Your task to perform on an android device: create a new album in the google photos Image 0: 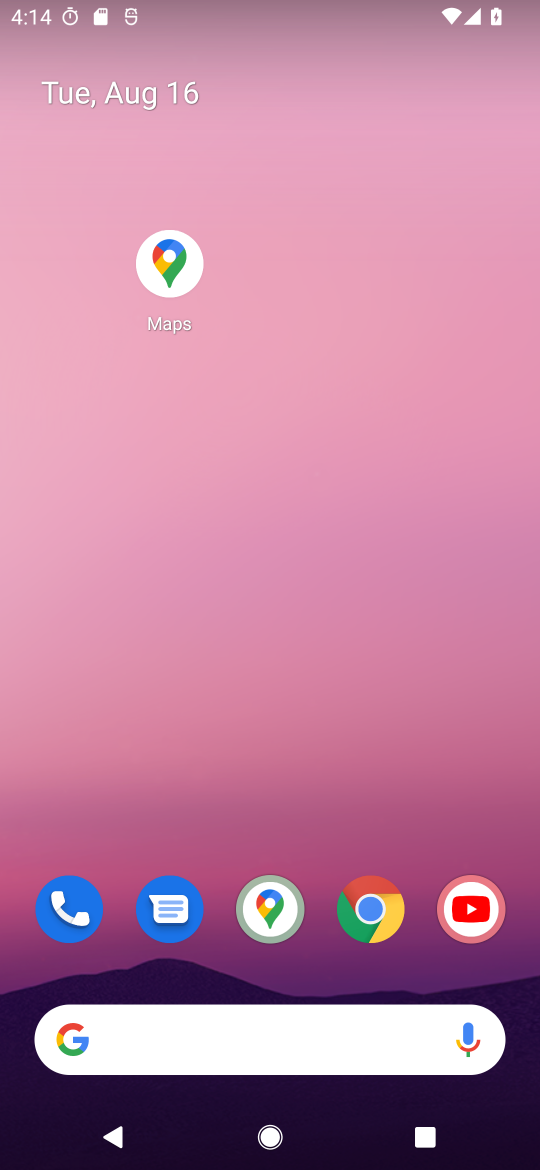
Step 0: drag from (269, 531) to (344, 5)
Your task to perform on an android device: create a new album in the google photos Image 1: 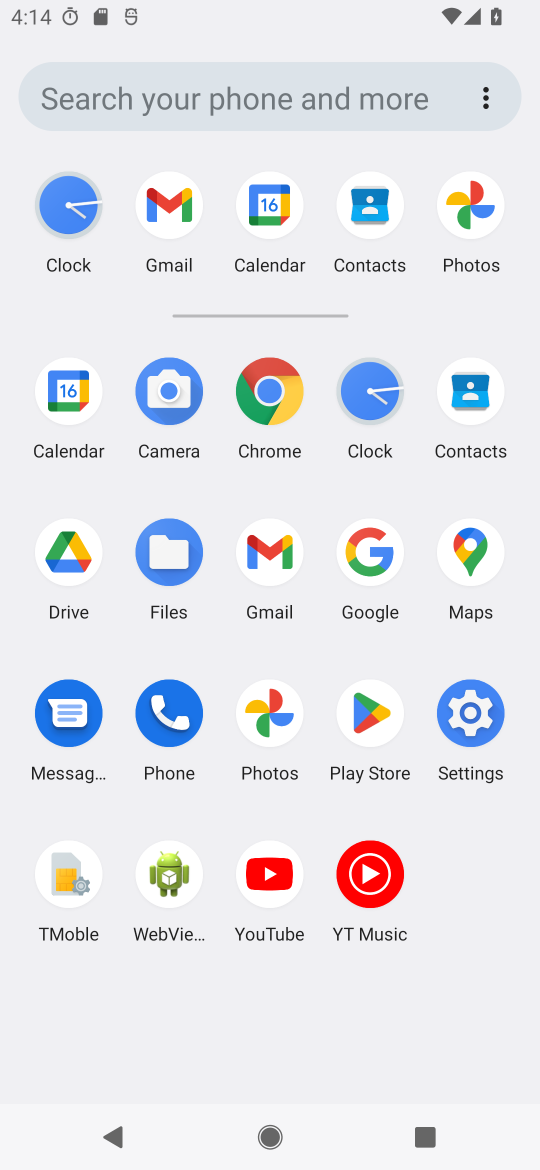
Step 1: click (257, 730)
Your task to perform on an android device: create a new album in the google photos Image 2: 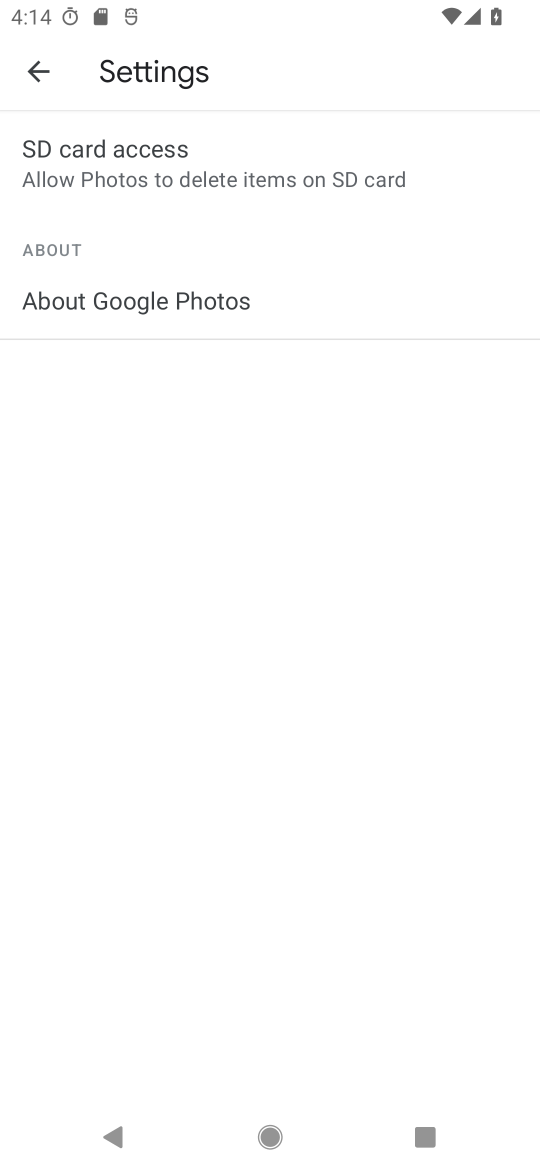
Step 2: click (36, 73)
Your task to perform on an android device: create a new album in the google photos Image 3: 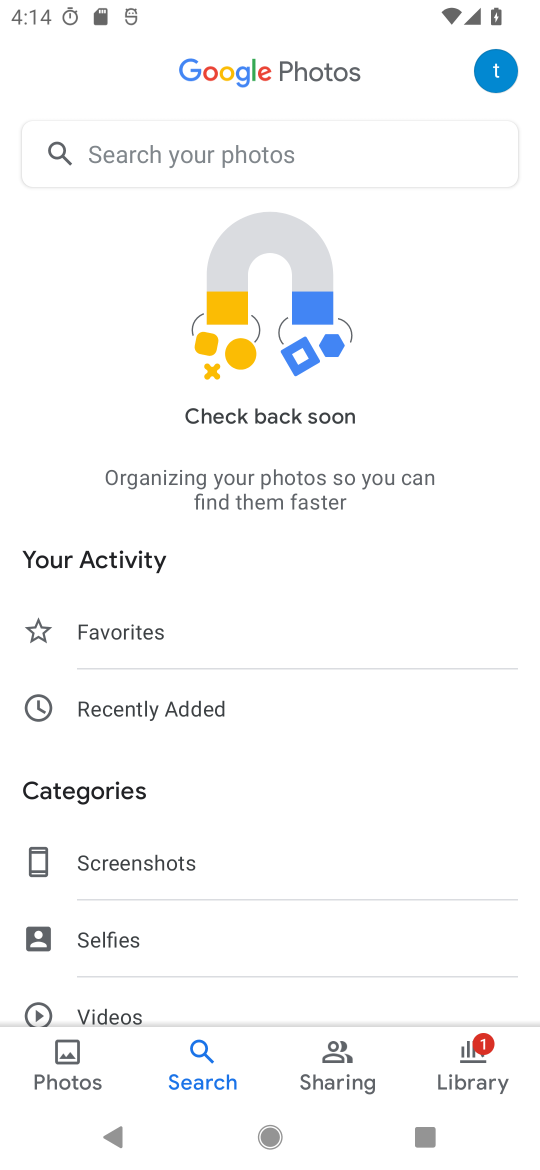
Step 3: click (36, 73)
Your task to perform on an android device: create a new album in the google photos Image 4: 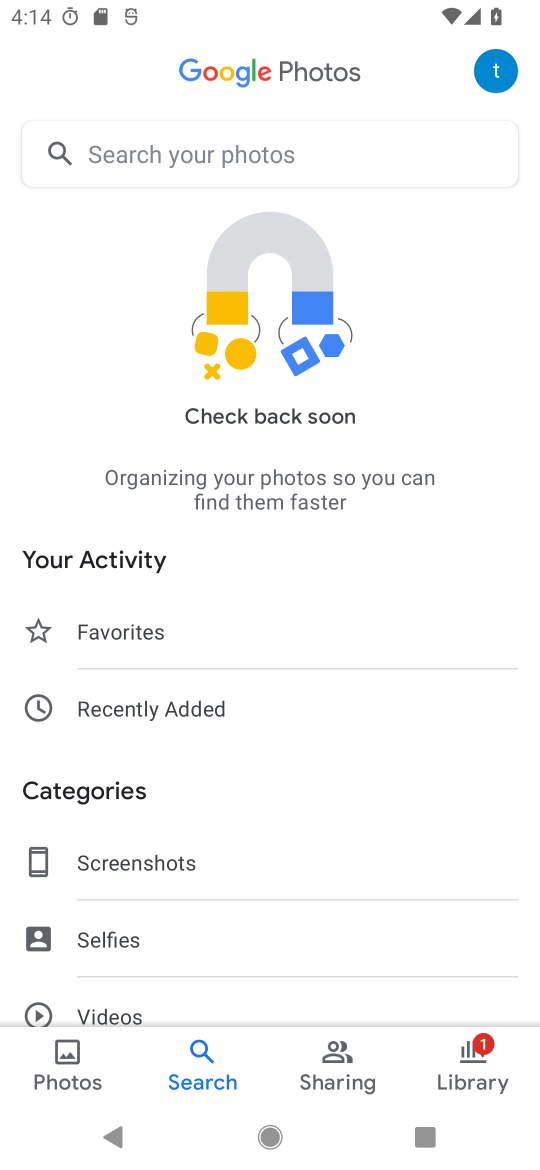
Step 4: click (478, 1074)
Your task to perform on an android device: create a new album in the google photos Image 5: 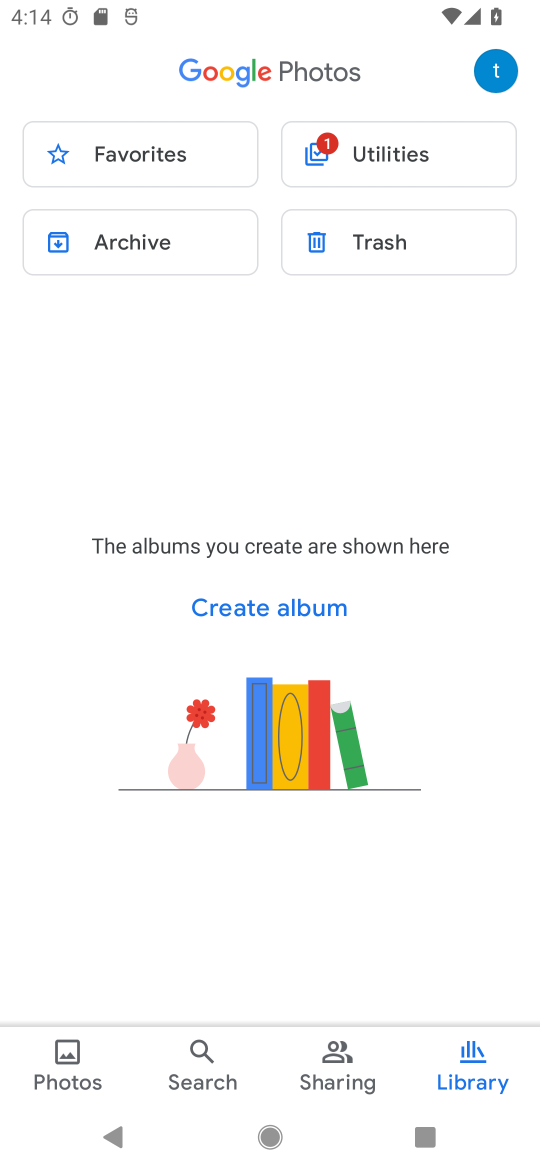
Step 5: click (298, 597)
Your task to perform on an android device: create a new album in the google photos Image 6: 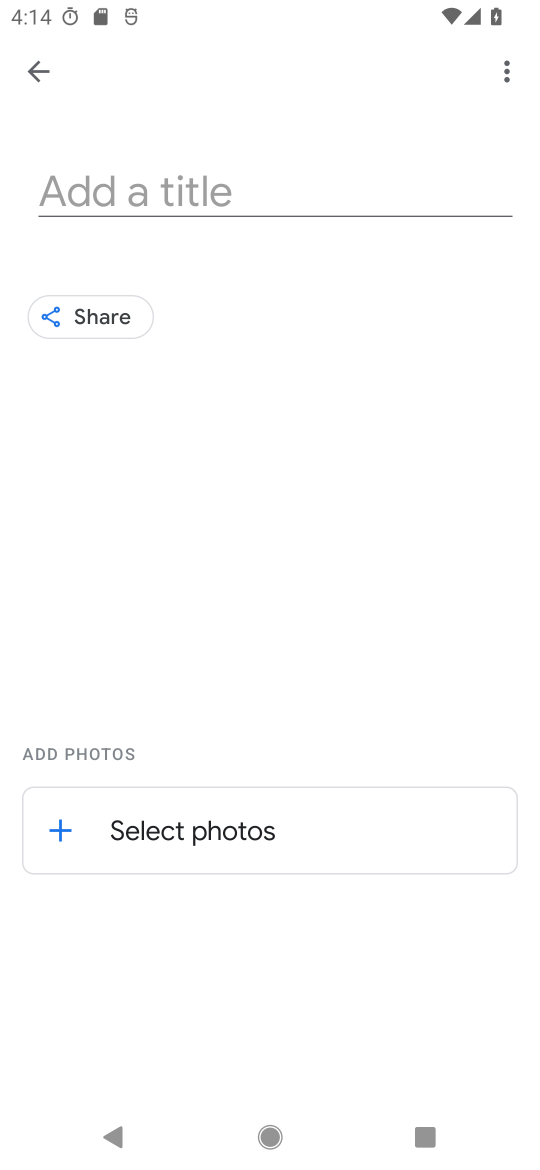
Step 6: click (243, 171)
Your task to perform on an android device: create a new album in the google photos Image 7: 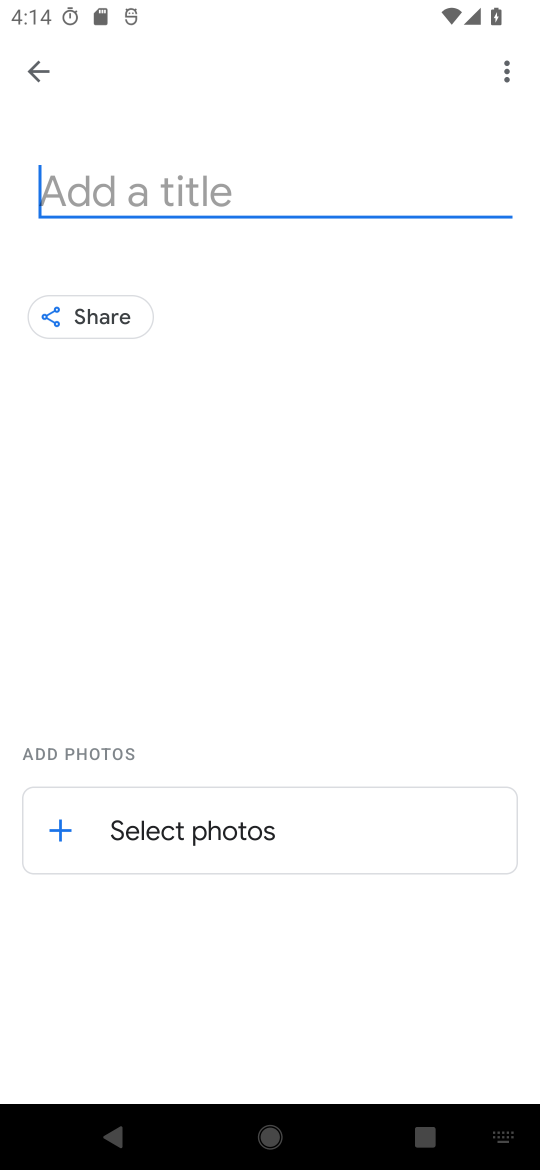
Step 7: click (179, 843)
Your task to perform on an android device: create a new album in the google photos Image 8: 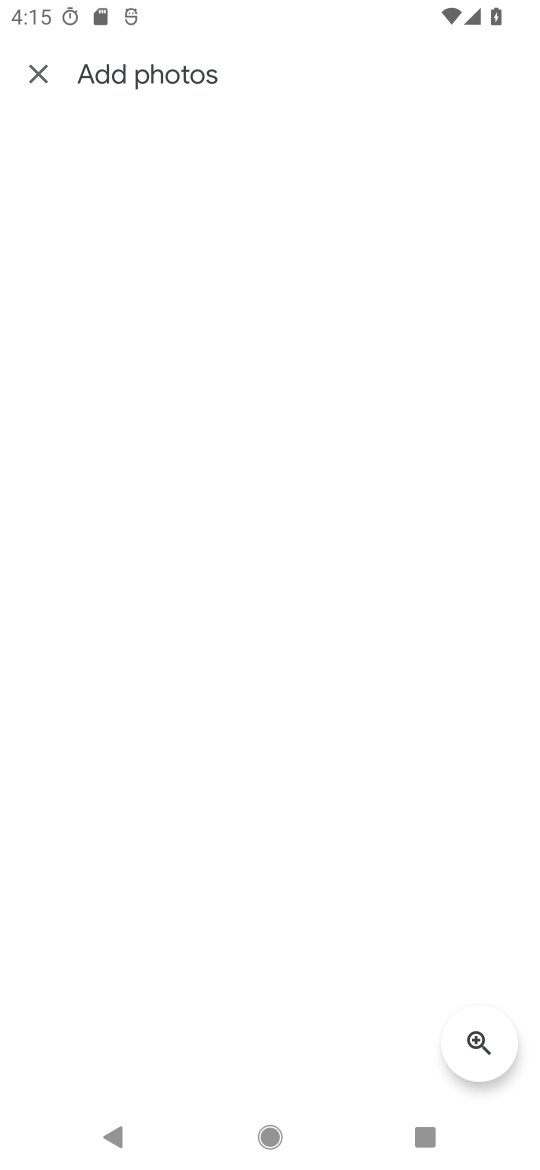
Step 8: task complete